Your task to perform on an android device: Go to battery settings Image 0: 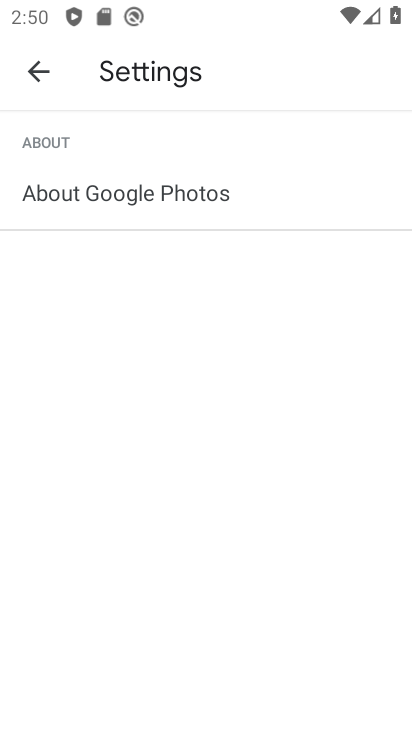
Step 0: press home button
Your task to perform on an android device: Go to battery settings Image 1: 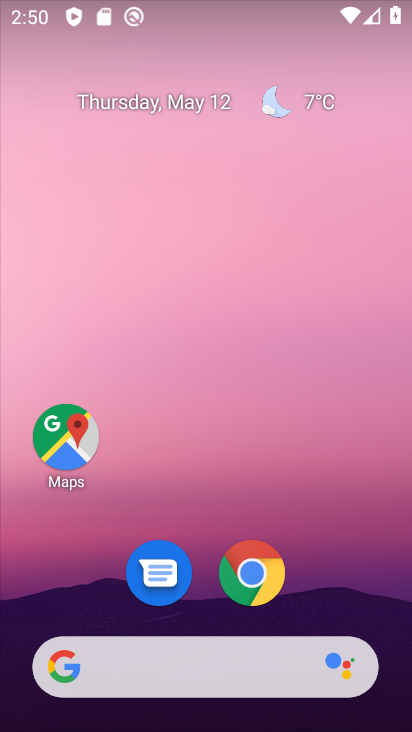
Step 1: drag from (202, 553) to (323, 5)
Your task to perform on an android device: Go to battery settings Image 2: 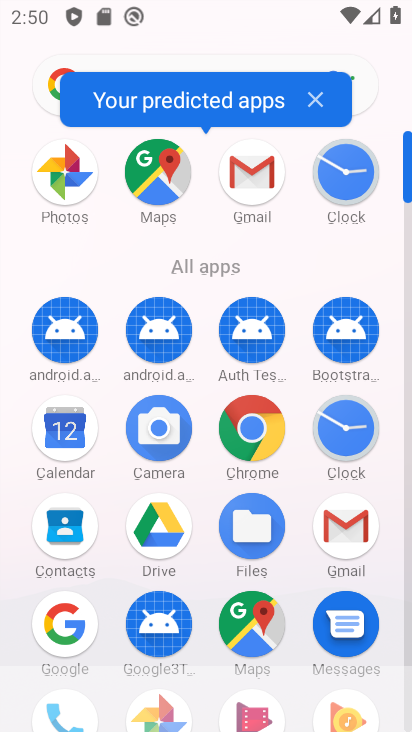
Step 2: drag from (241, 530) to (303, 24)
Your task to perform on an android device: Go to battery settings Image 3: 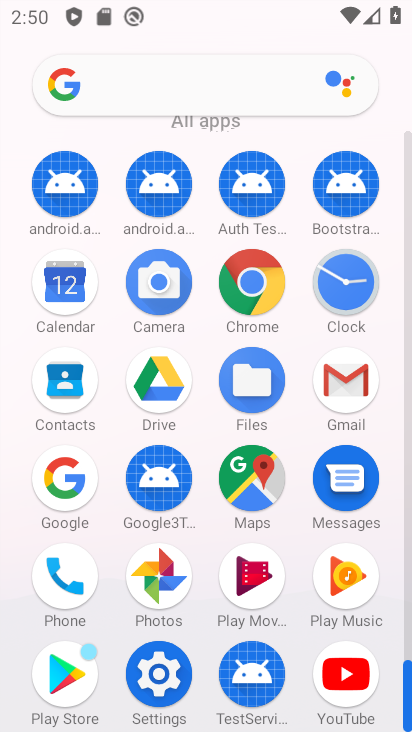
Step 3: click (160, 659)
Your task to perform on an android device: Go to battery settings Image 4: 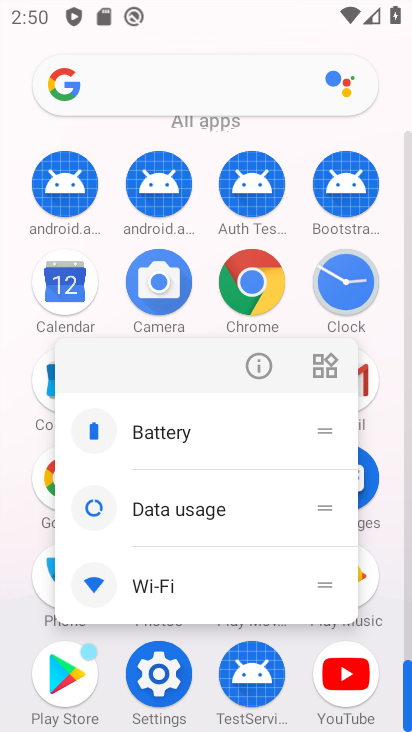
Step 4: click (153, 438)
Your task to perform on an android device: Go to battery settings Image 5: 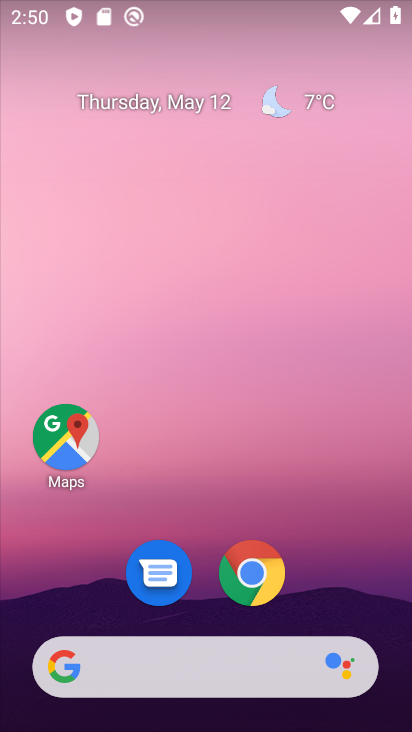
Step 5: drag from (227, 607) to (288, 0)
Your task to perform on an android device: Go to battery settings Image 6: 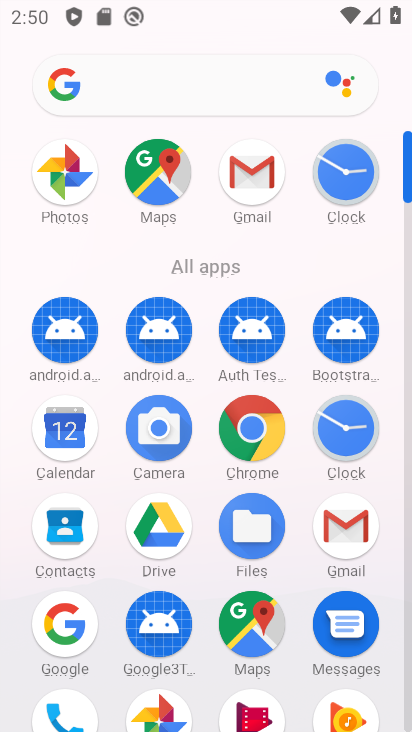
Step 6: drag from (212, 531) to (316, 22)
Your task to perform on an android device: Go to battery settings Image 7: 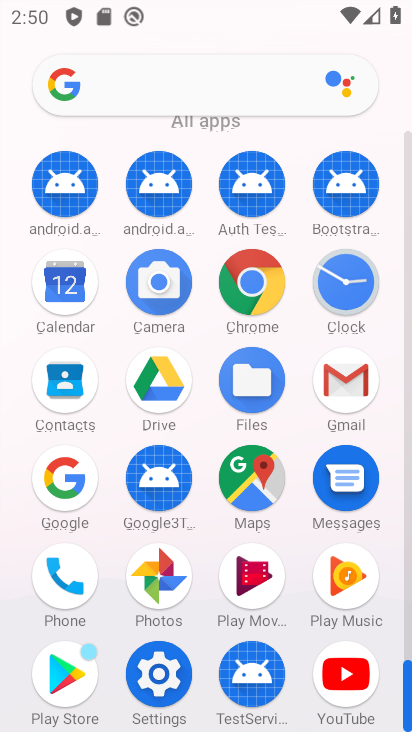
Step 7: click (155, 665)
Your task to perform on an android device: Go to battery settings Image 8: 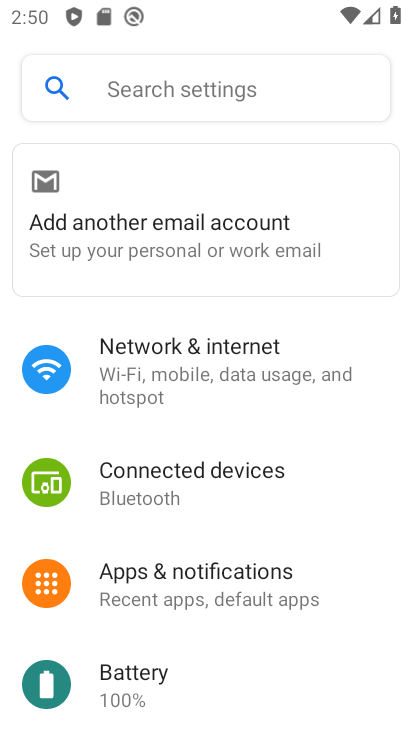
Step 8: drag from (187, 541) to (244, 299)
Your task to perform on an android device: Go to battery settings Image 9: 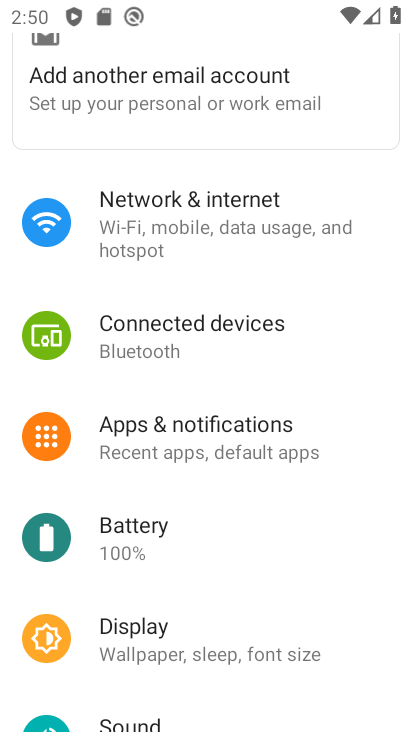
Step 9: click (157, 522)
Your task to perform on an android device: Go to battery settings Image 10: 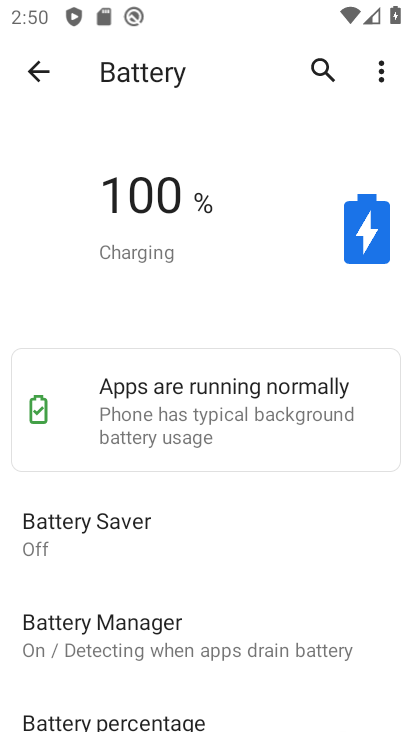
Step 10: task complete